Your task to perform on an android device: turn on wifi Image 0: 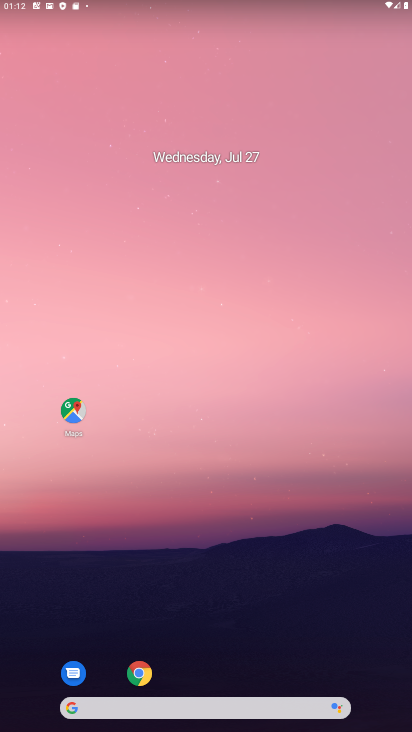
Step 0: drag from (227, 669) to (216, 280)
Your task to perform on an android device: turn on wifi Image 1: 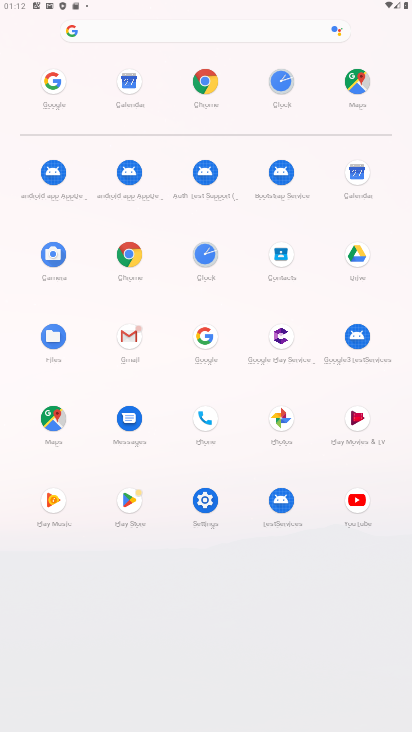
Step 1: click (200, 498)
Your task to perform on an android device: turn on wifi Image 2: 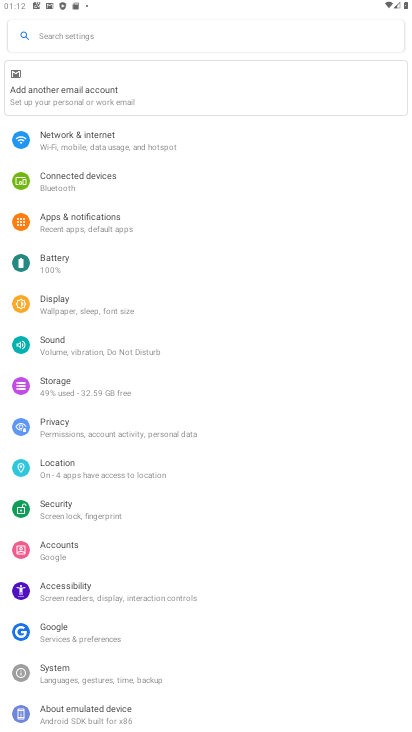
Step 2: click (86, 137)
Your task to perform on an android device: turn on wifi Image 3: 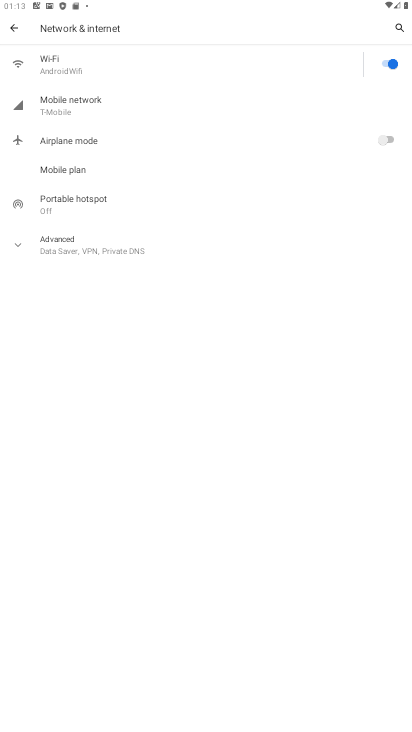
Step 3: task complete